Your task to perform on an android device: Open Android settings Image 0: 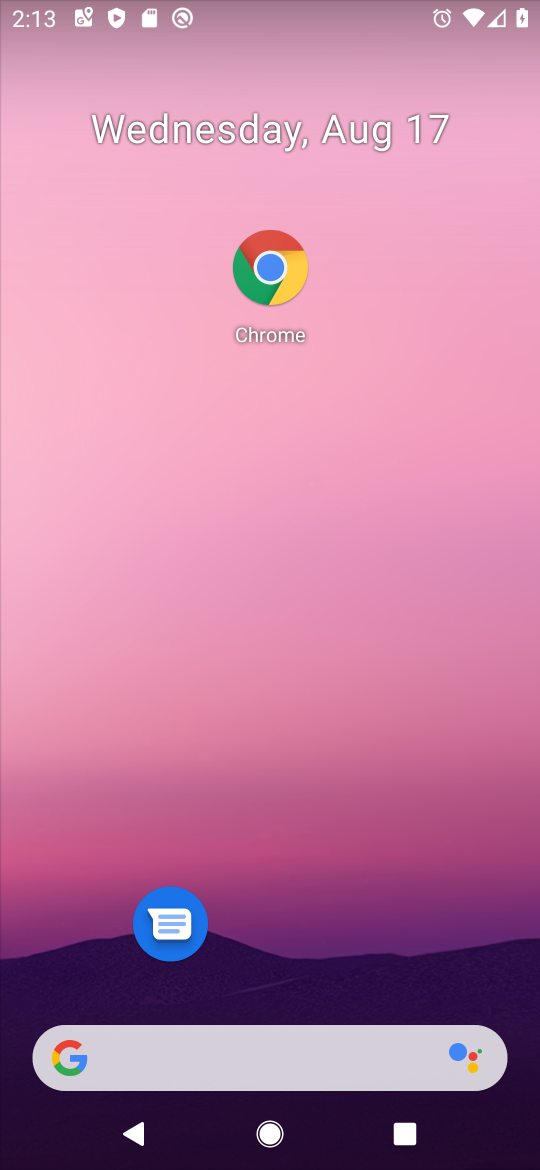
Step 0: drag from (382, 987) to (419, 438)
Your task to perform on an android device: Open Android settings Image 1: 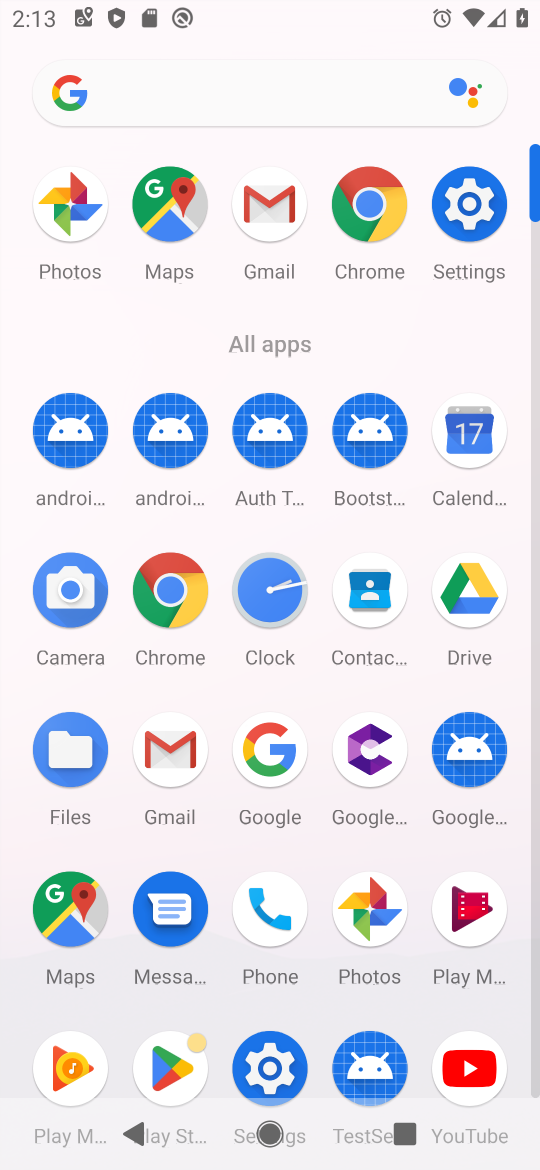
Step 1: click (248, 1066)
Your task to perform on an android device: Open Android settings Image 2: 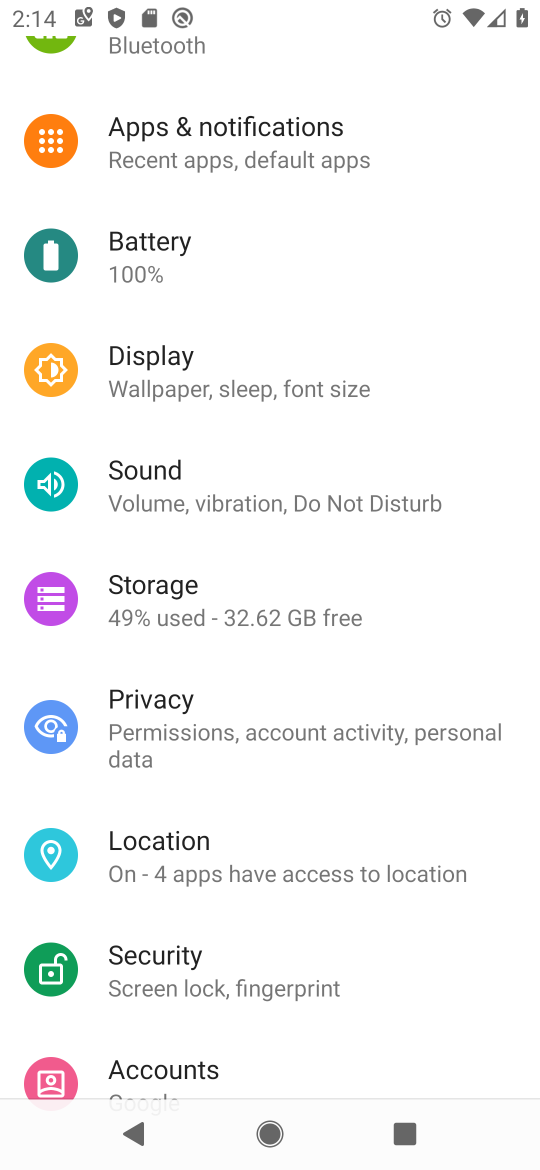
Step 2: task complete